Your task to perform on an android device: Show me popular videos on Youtube Image 0: 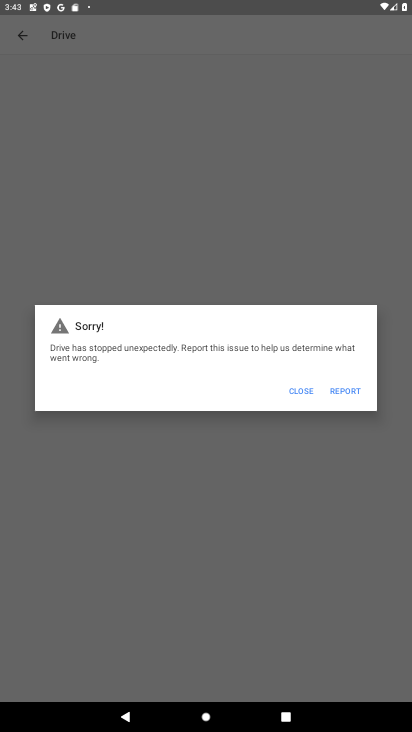
Step 0: press home button
Your task to perform on an android device: Show me popular videos on Youtube Image 1: 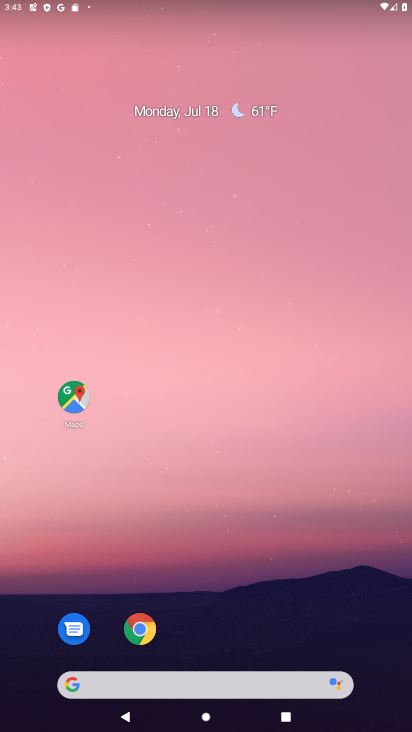
Step 1: drag from (210, 667) to (232, 218)
Your task to perform on an android device: Show me popular videos on Youtube Image 2: 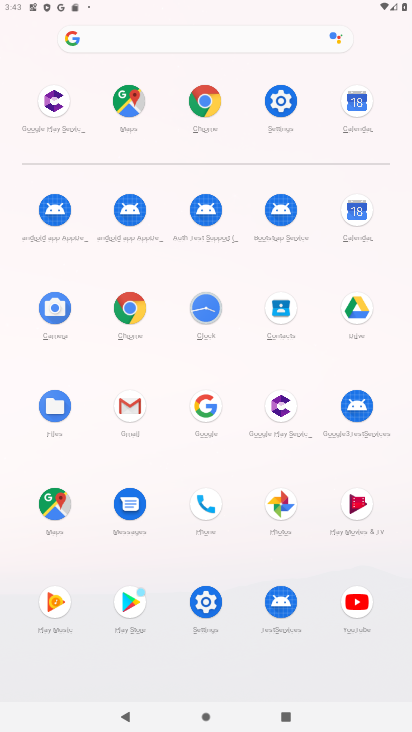
Step 2: click (355, 608)
Your task to perform on an android device: Show me popular videos on Youtube Image 3: 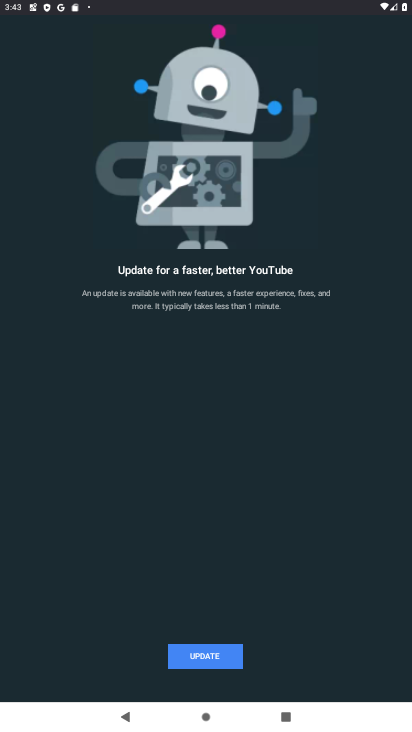
Step 3: click (220, 658)
Your task to perform on an android device: Show me popular videos on Youtube Image 4: 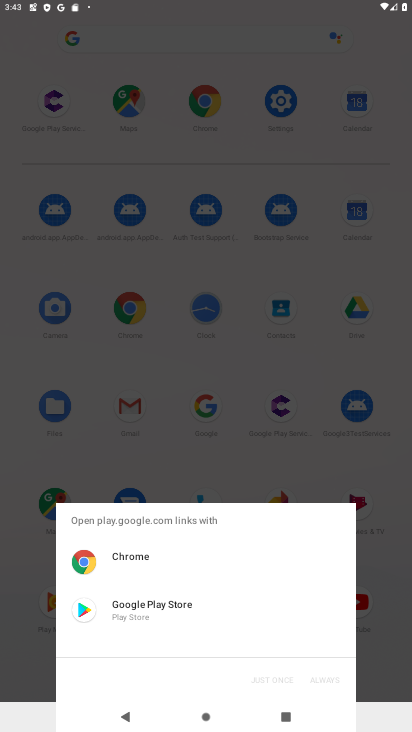
Step 4: drag from (144, 608) to (235, 608)
Your task to perform on an android device: Show me popular videos on Youtube Image 5: 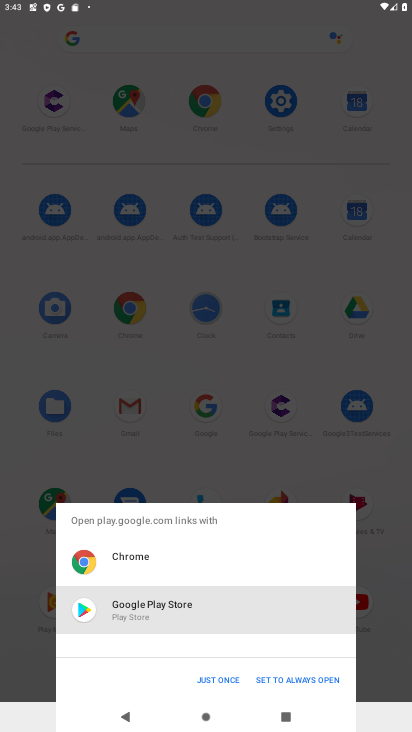
Step 5: click (227, 677)
Your task to perform on an android device: Show me popular videos on Youtube Image 6: 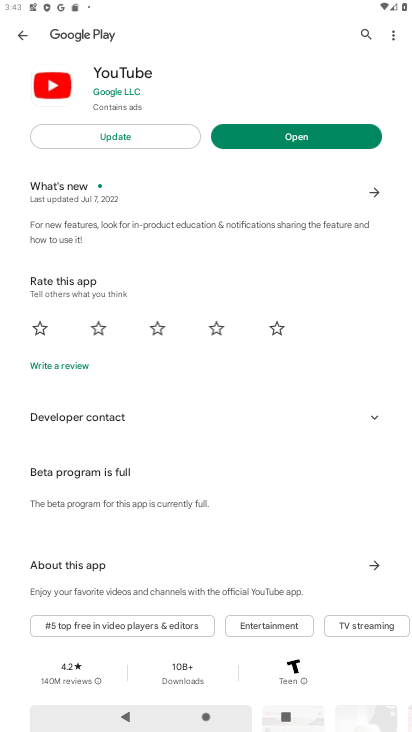
Step 6: click (139, 135)
Your task to perform on an android device: Show me popular videos on Youtube Image 7: 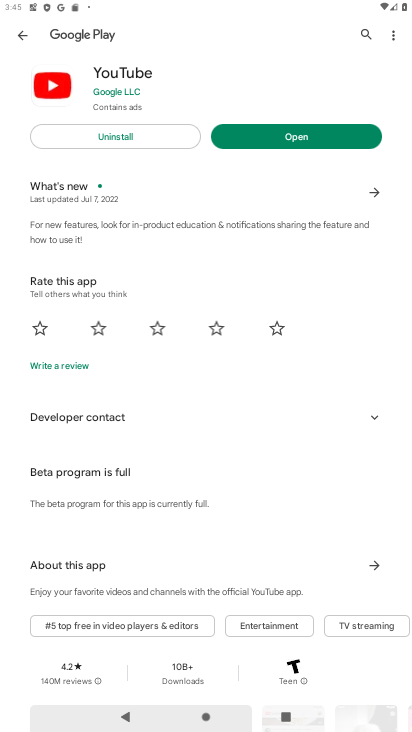
Step 7: click (253, 136)
Your task to perform on an android device: Show me popular videos on Youtube Image 8: 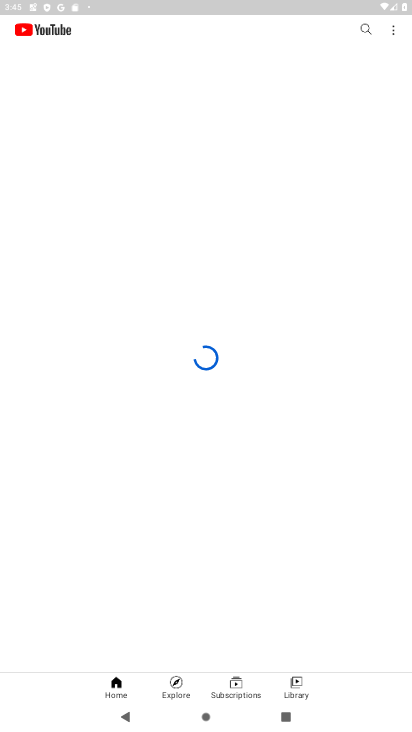
Step 8: click (115, 693)
Your task to perform on an android device: Show me popular videos on Youtube Image 9: 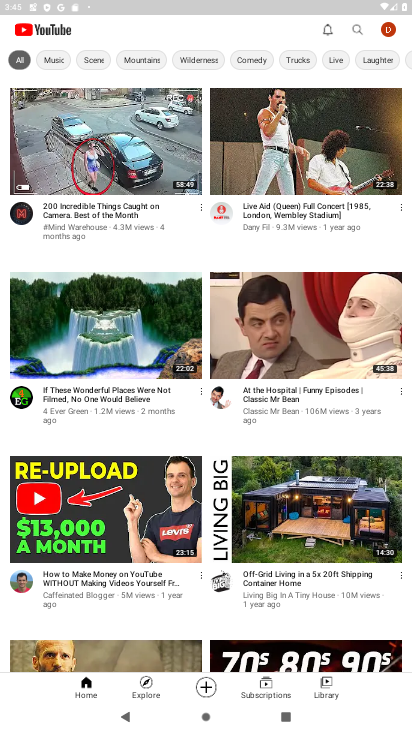
Step 9: task complete